Your task to perform on an android device: Clear the shopping cart on amazon.com. Add usb-a to the cart on amazon.com, then select checkout. Image 0: 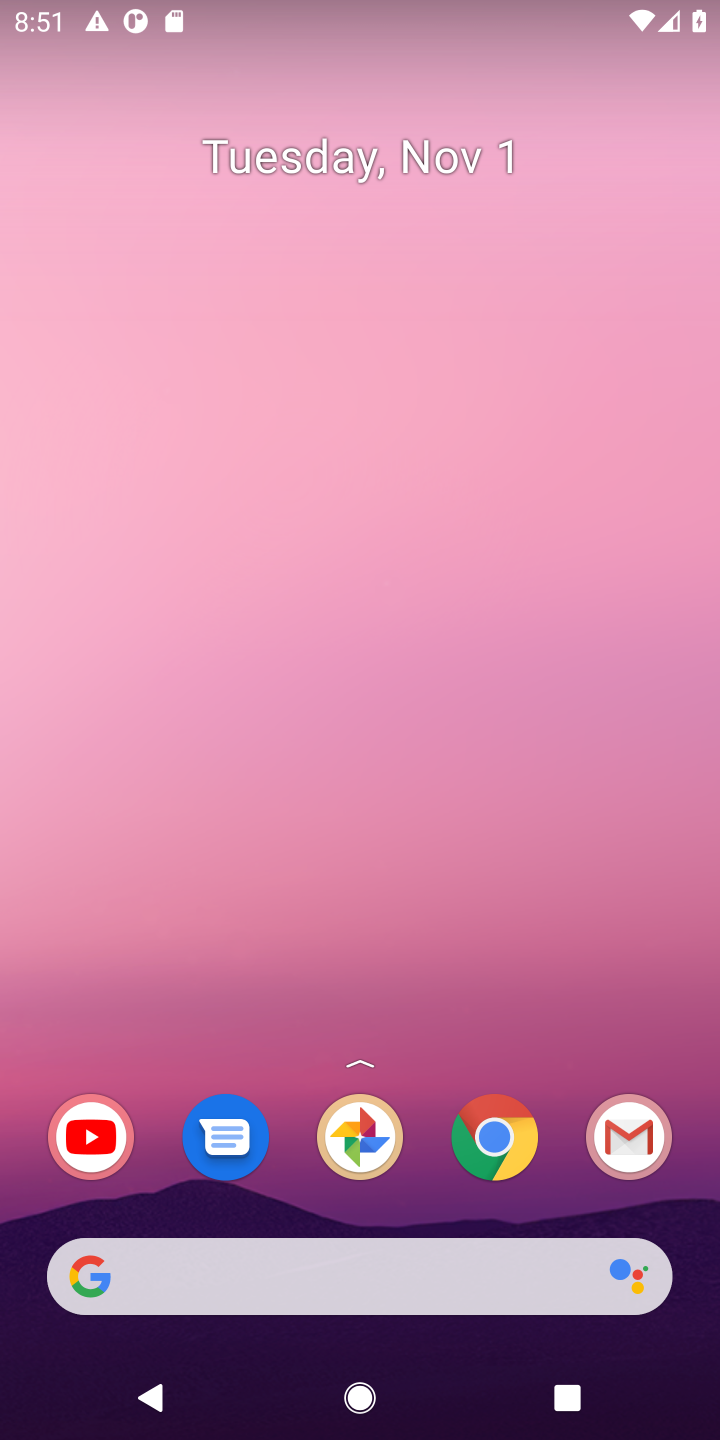
Step 0: click (315, 1279)
Your task to perform on an android device: Clear the shopping cart on amazon.com. Add usb-a to the cart on amazon.com, then select checkout. Image 1: 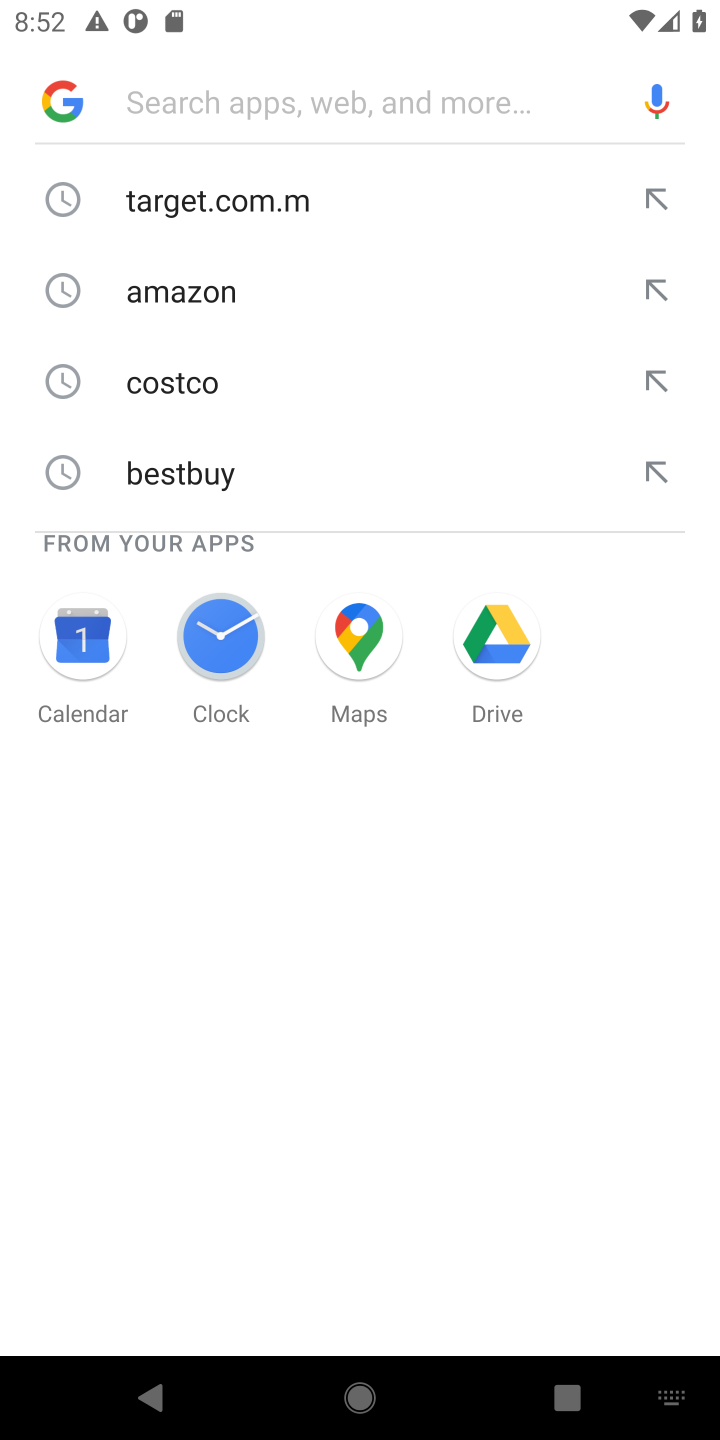
Step 1: click (242, 313)
Your task to perform on an android device: Clear the shopping cart on amazon.com. Add usb-a to the cart on amazon.com, then select checkout. Image 2: 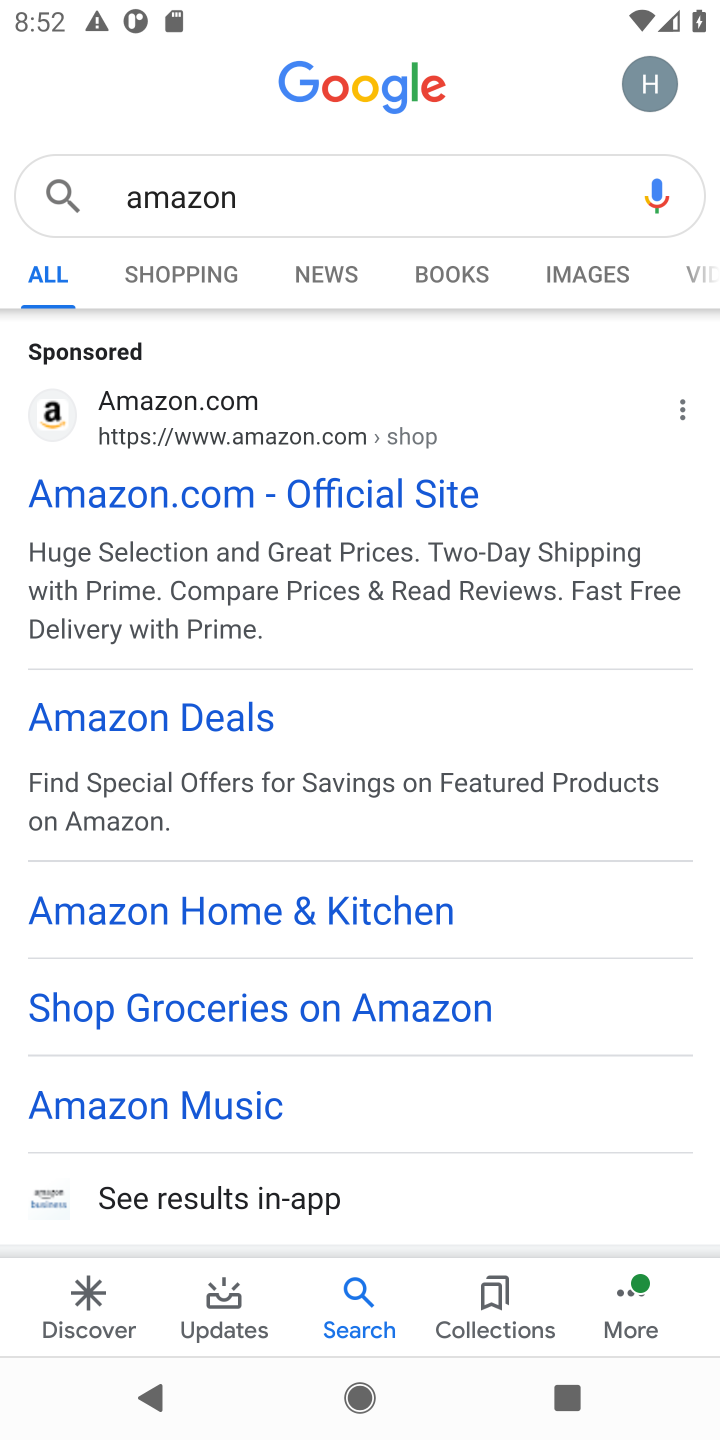
Step 2: click (165, 408)
Your task to perform on an android device: Clear the shopping cart on amazon.com. Add usb-a to the cart on amazon.com, then select checkout. Image 3: 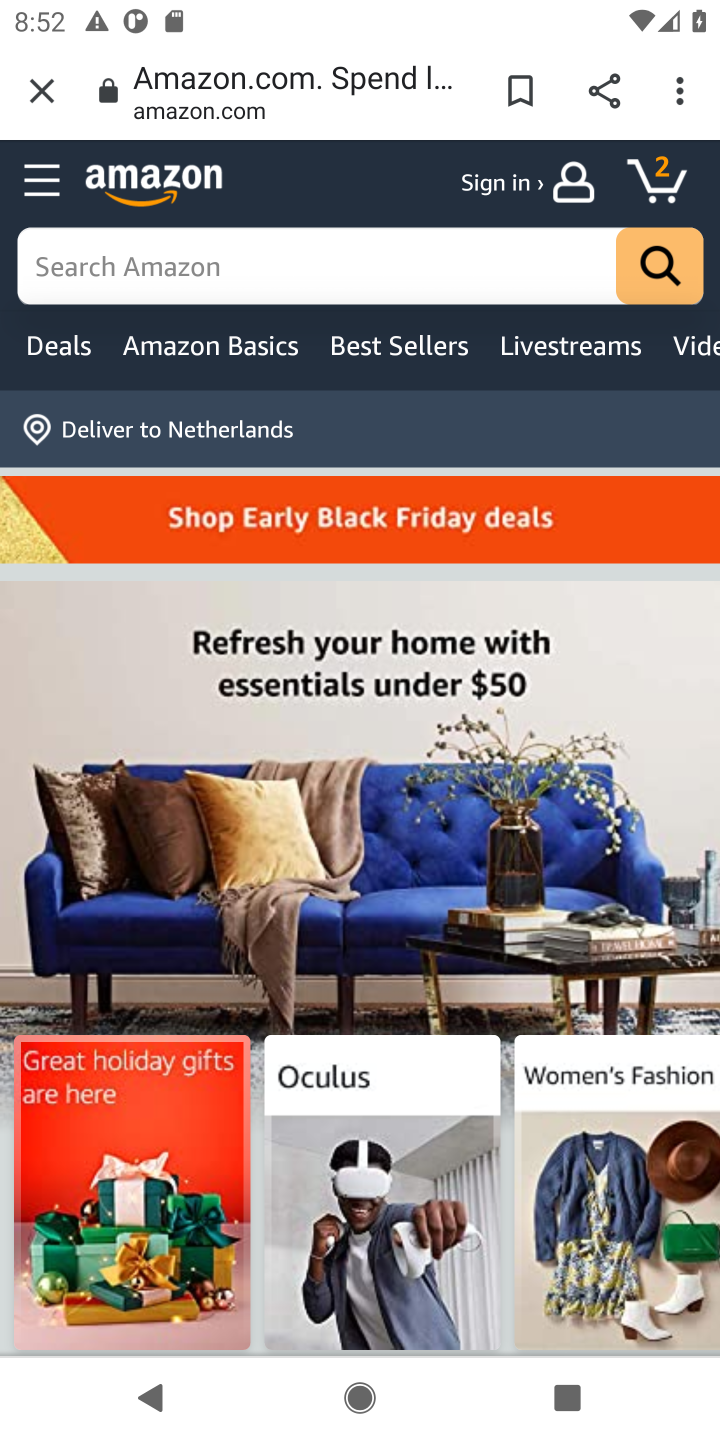
Step 3: click (274, 261)
Your task to perform on an android device: Clear the shopping cart on amazon.com. Add usb-a to the cart on amazon.com, then select checkout. Image 4: 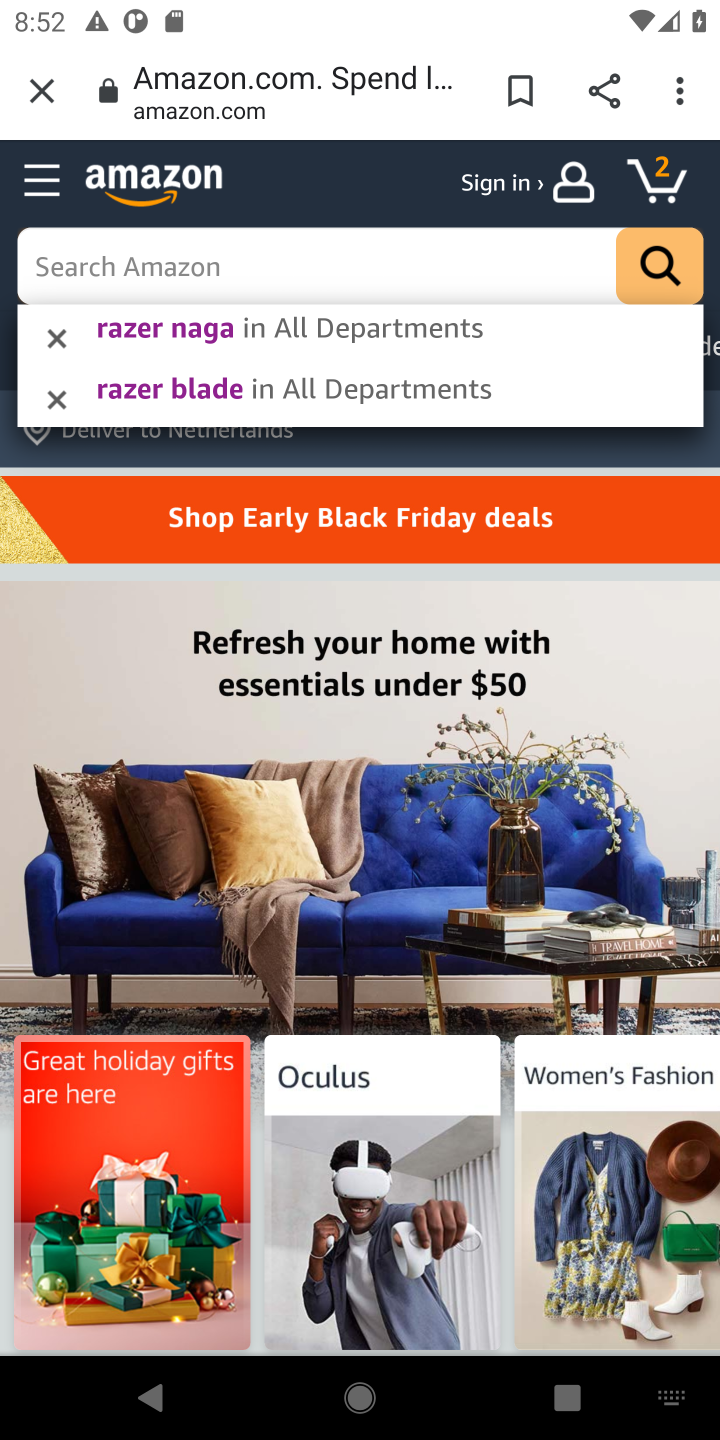
Step 4: type "Add usb-a "
Your task to perform on an android device: Clear the shopping cart on amazon.com. Add usb-a to the cart on amazon.com, then select checkout. Image 5: 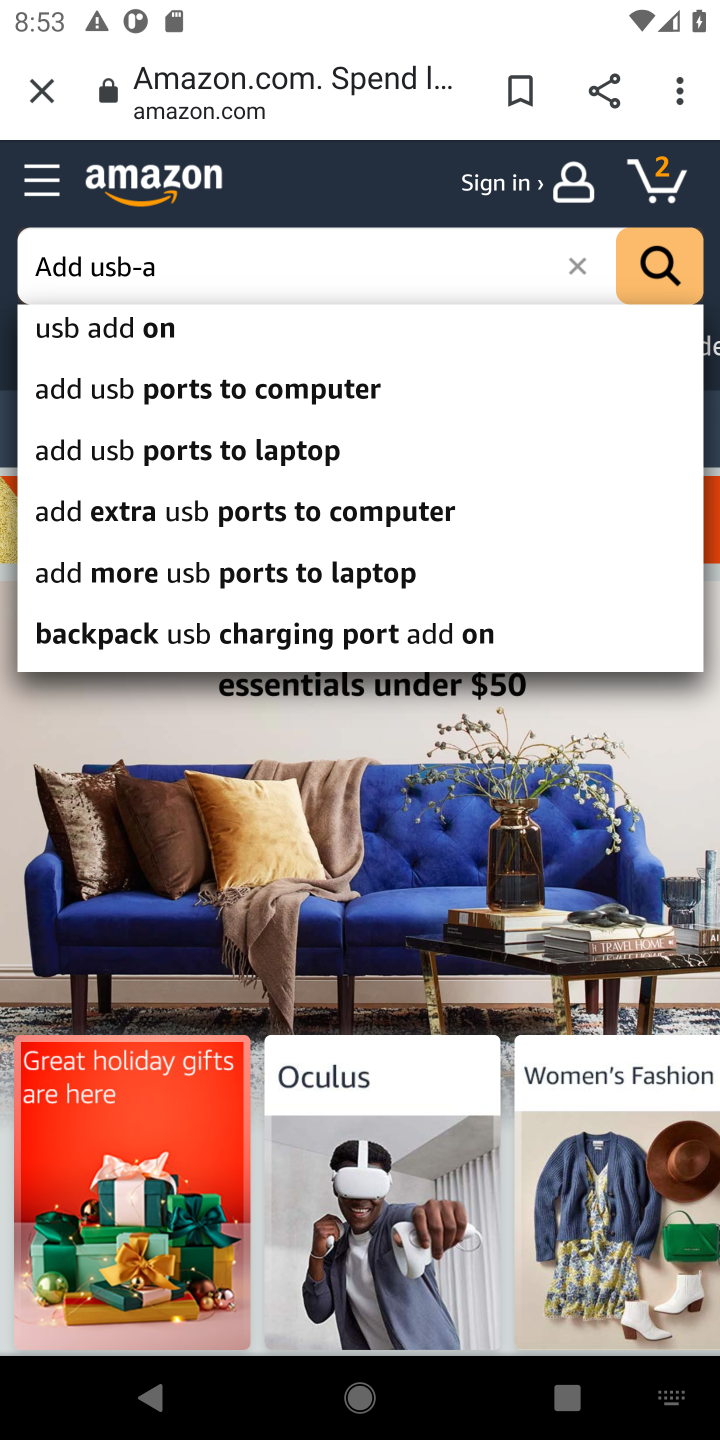
Step 5: click (99, 324)
Your task to perform on an android device: Clear the shopping cart on amazon.com. Add usb-a to the cart on amazon.com, then select checkout. Image 6: 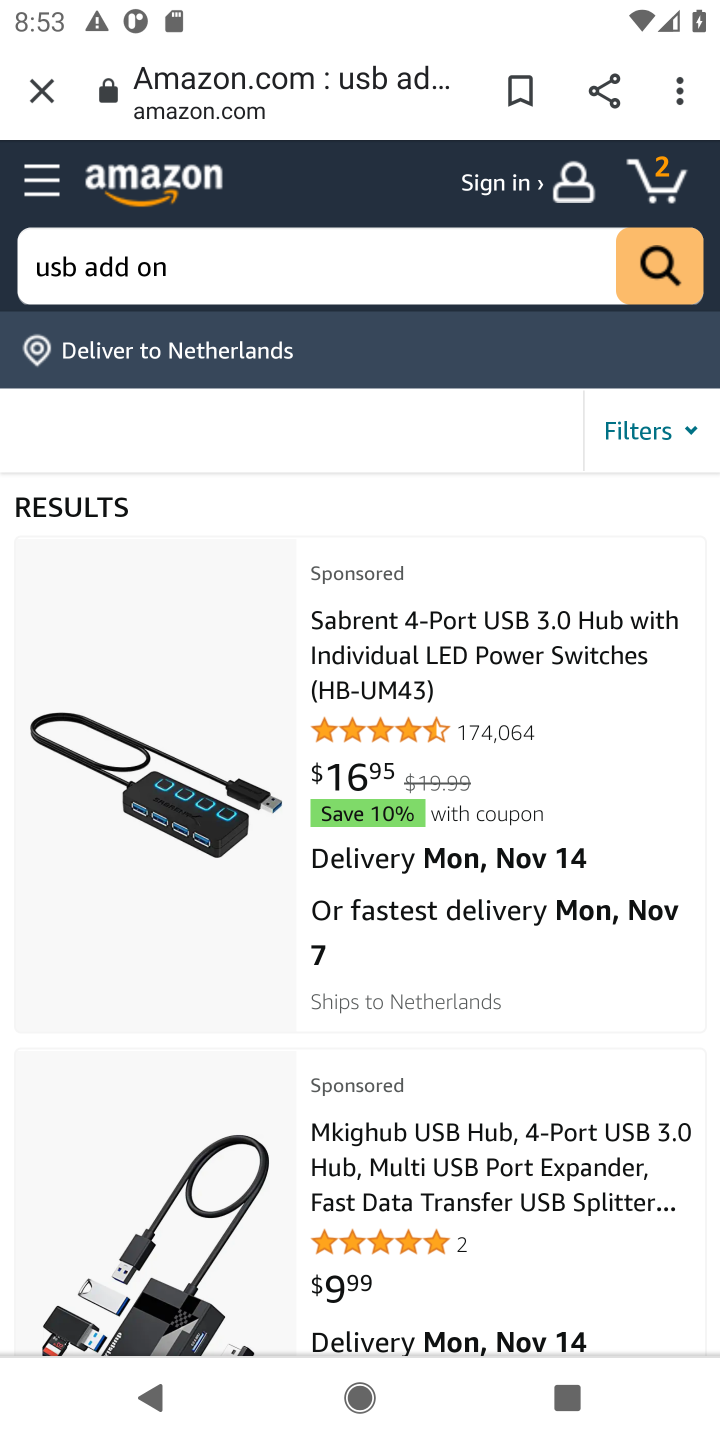
Step 6: click (371, 693)
Your task to perform on an android device: Clear the shopping cart on amazon.com. Add usb-a to the cart on amazon.com, then select checkout. Image 7: 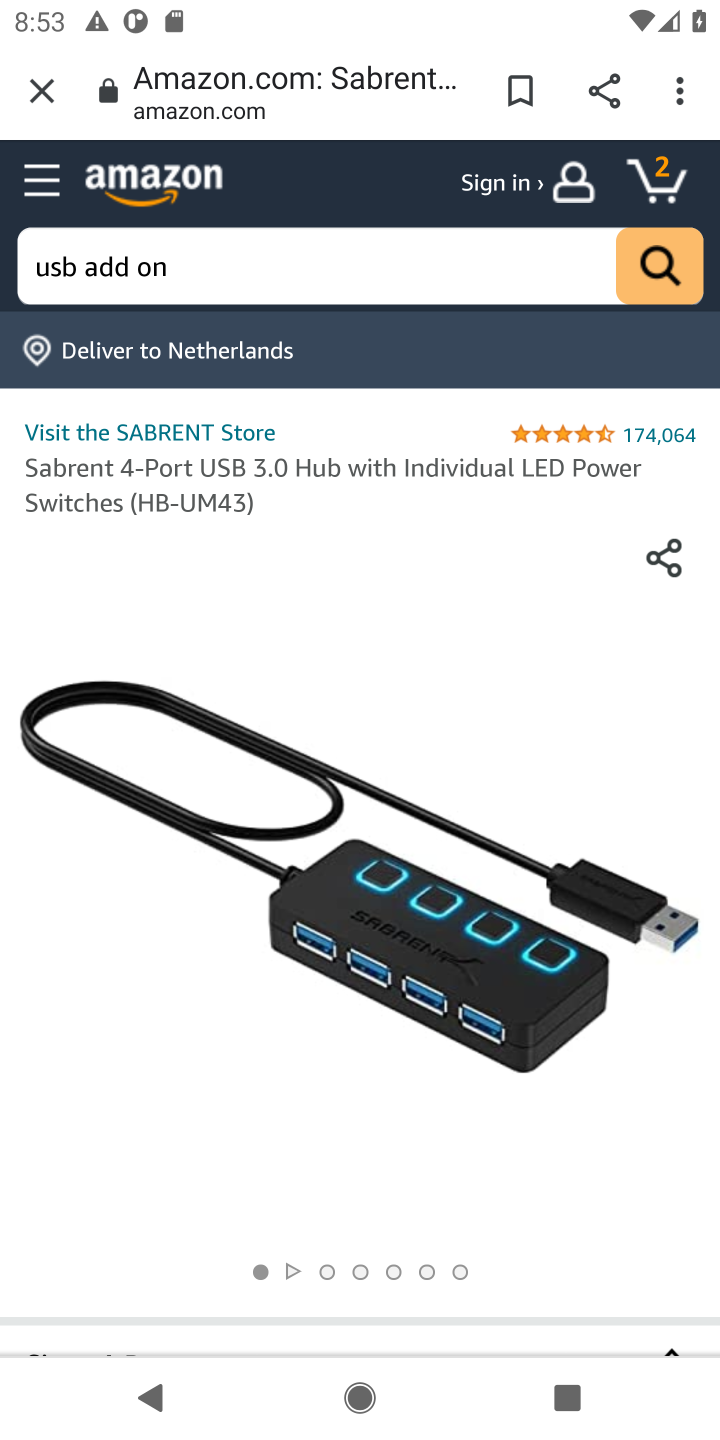
Step 7: drag from (466, 985) to (470, 795)
Your task to perform on an android device: Clear the shopping cart on amazon.com. Add usb-a to the cart on amazon.com, then select checkout. Image 8: 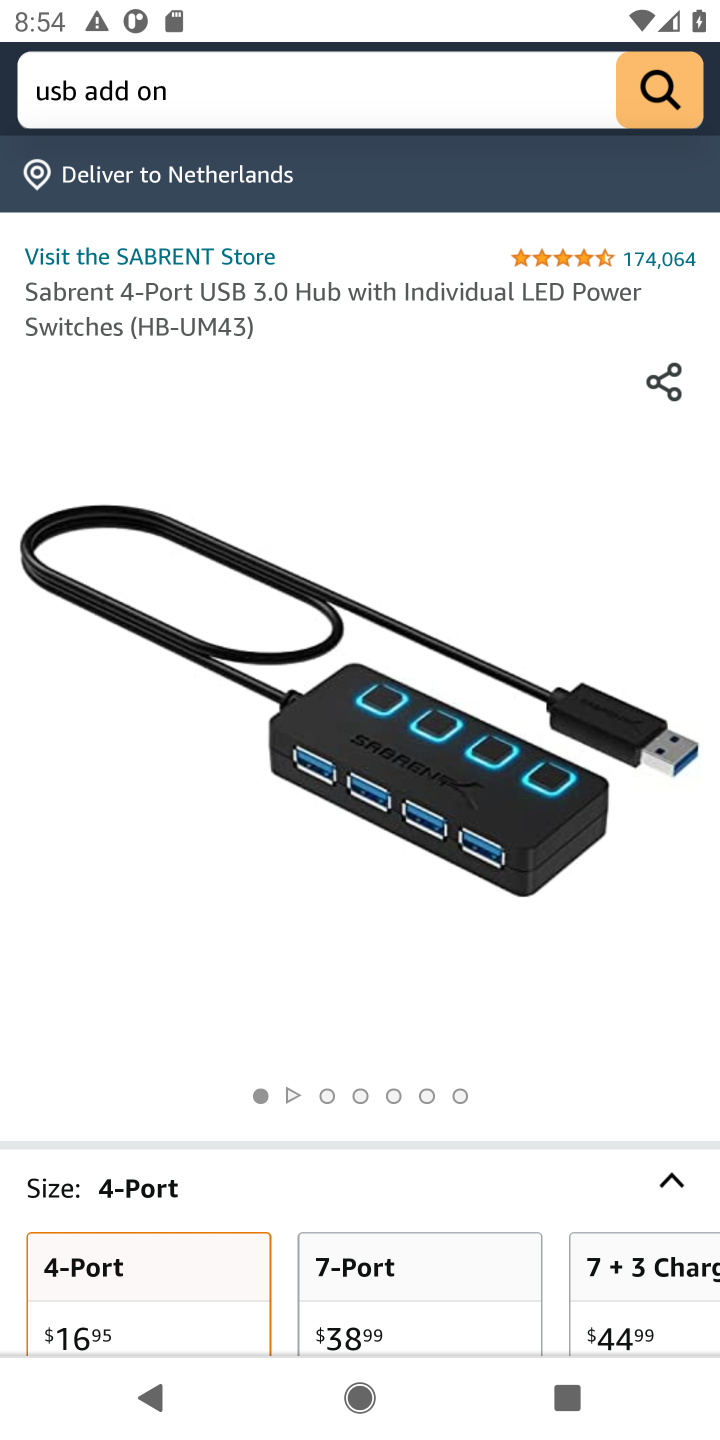
Step 8: drag from (524, 1092) to (524, 508)
Your task to perform on an android device: Clear the shopping cart on amazon.com. Add usb-a to the cart on amazon.com, then select checkout. Image 9: 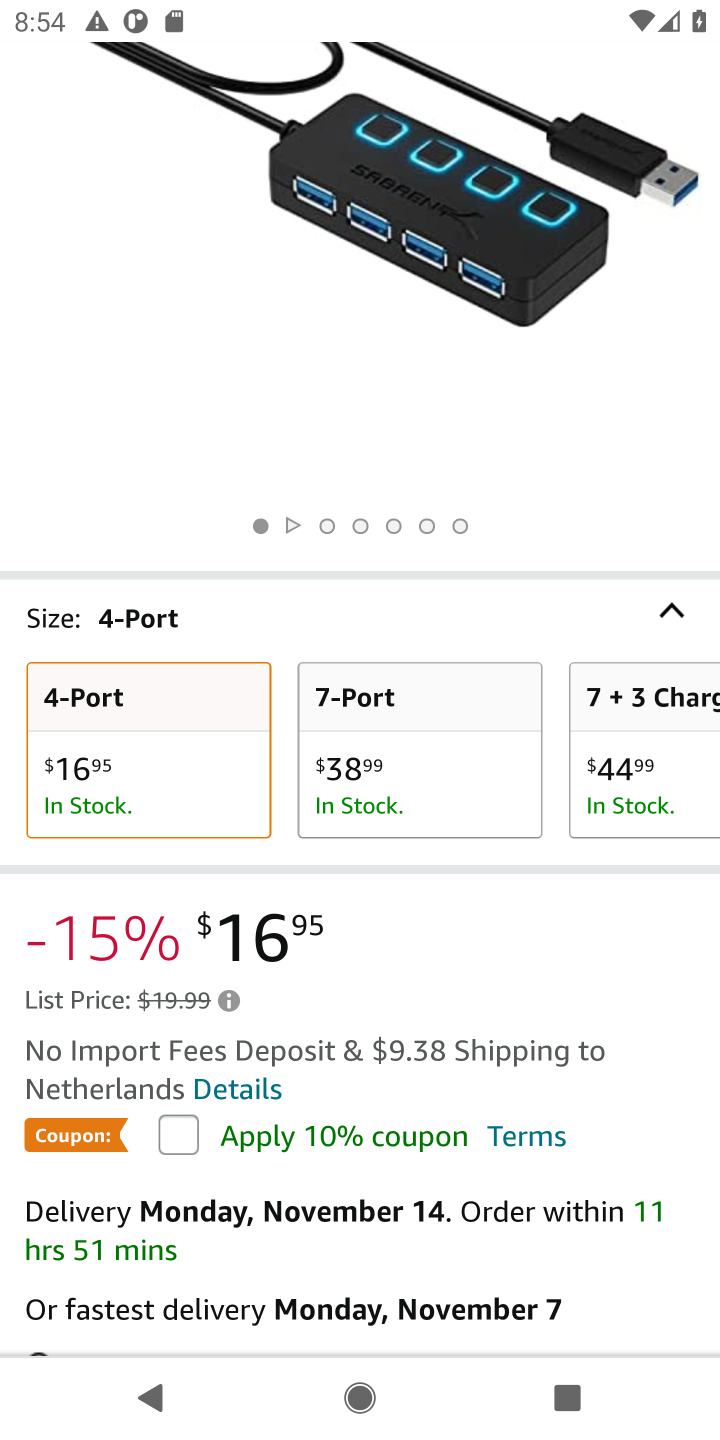
Step 9: drag from (445, 1077) to (451, 589)
Your task to perform on an android device: Clear the shopping cart on amazon.com. Add usb-a to the cart on amazon.com, then select checkout. Image 10: 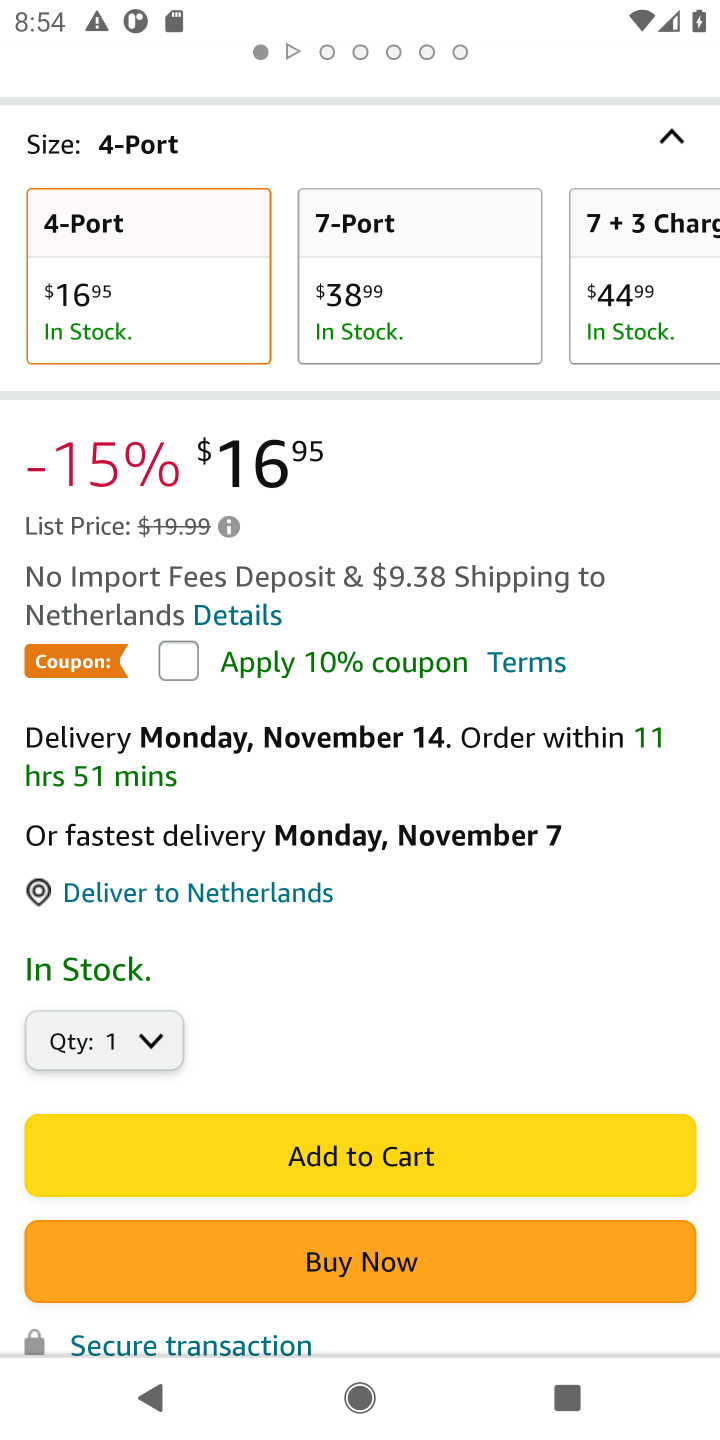
Step 10: click (365, 1139)
Your task to perform on an android device: Clear the shopping cart on amazon.com. Add usb-a to the cart on amazon.com, then select checkout. Image 11: 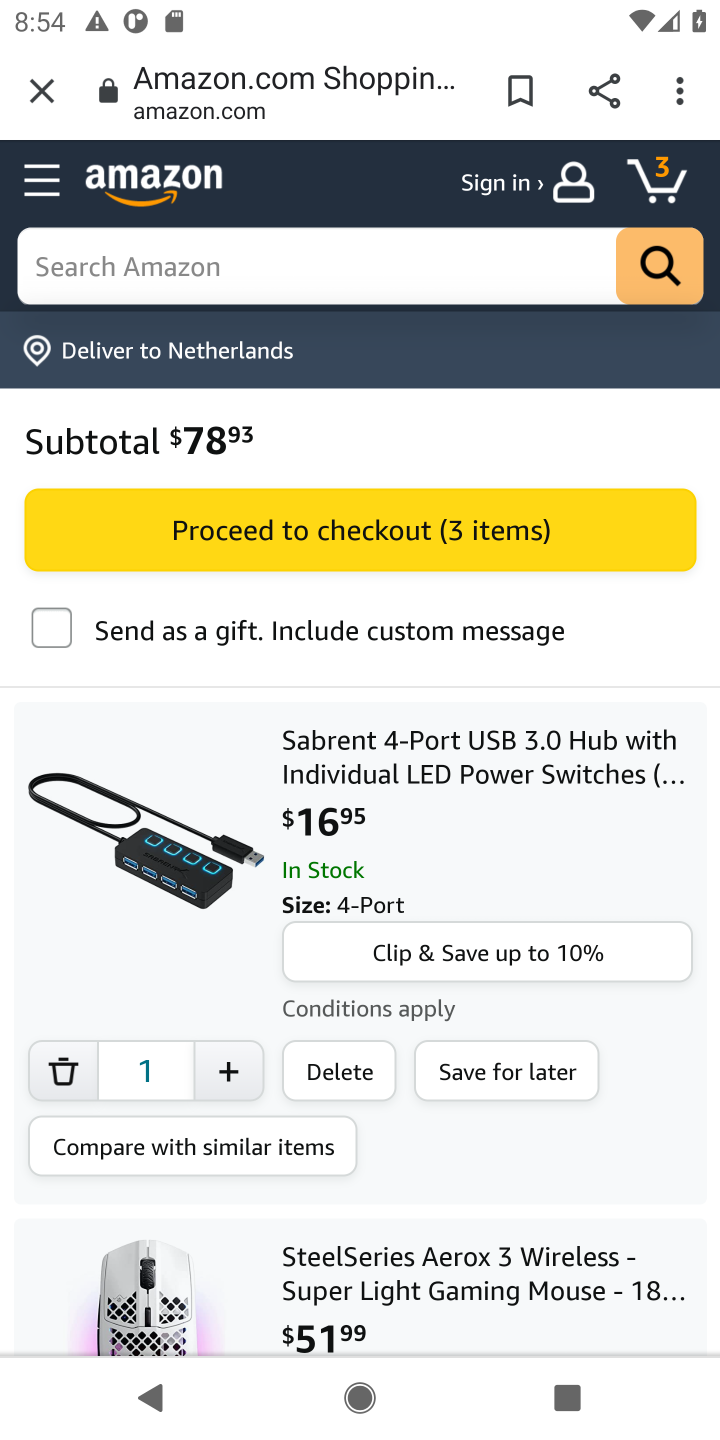
Step 11: click (349, 540)
Your task to perform on an android device: Clear the shopping cart on amazon.com. Add usb-a to the cart on amazon.com, then select checkout. Image 12: 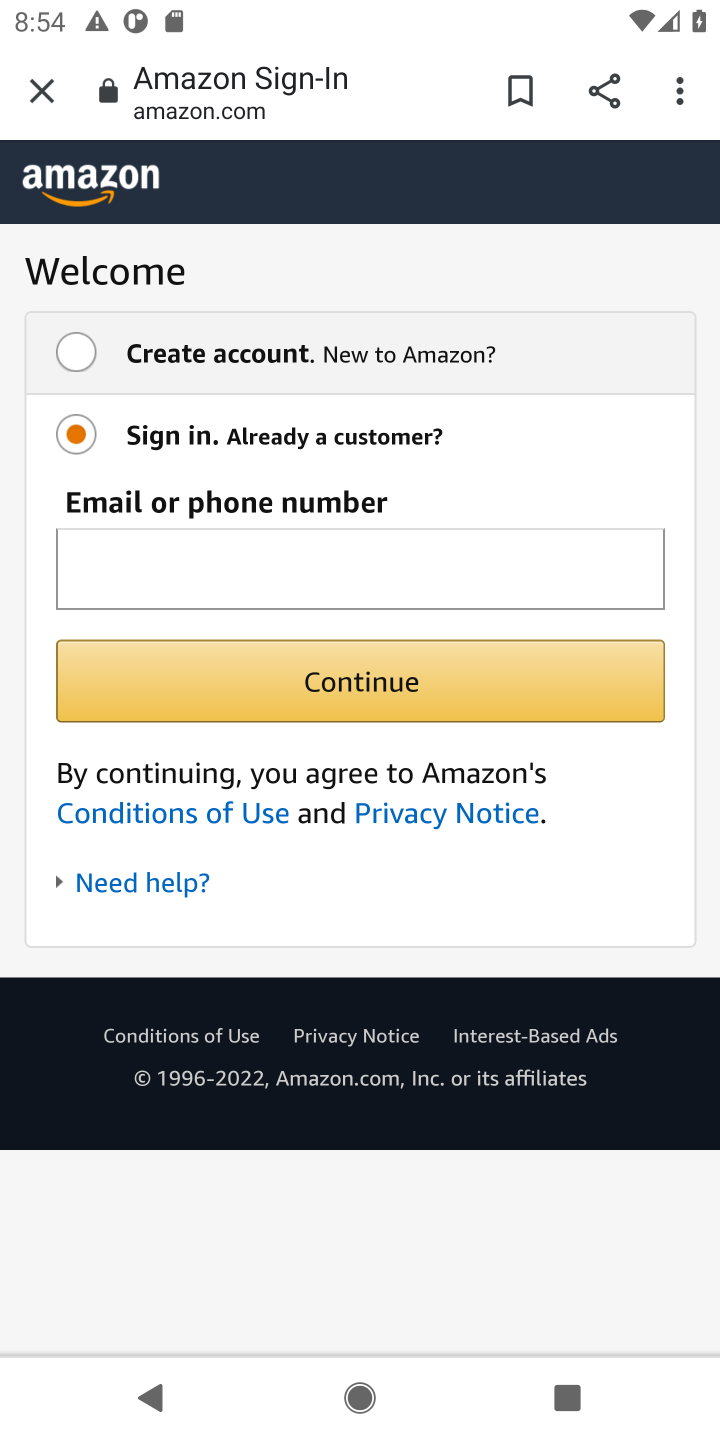
Step 12: task complete